Your task to perform on an android device: Search for "logitech g502" on target, select the first entry, and add it to the cart. Image 0: 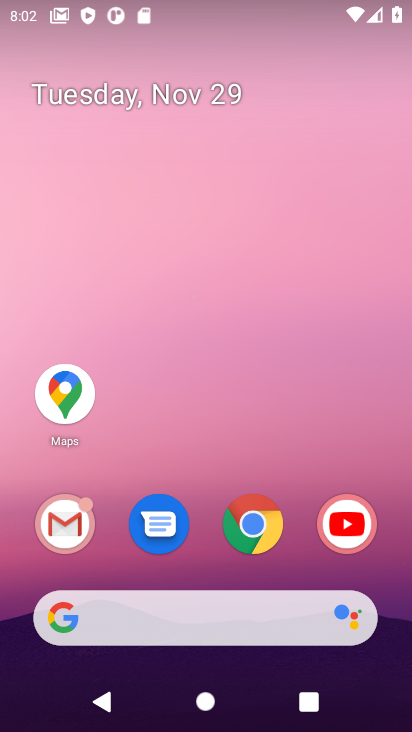
Step 0: click (249, 524)
Your task to perform on an android device: Search for "logitech g502" on target, select the first entry, and add it to the cart. Image 1: 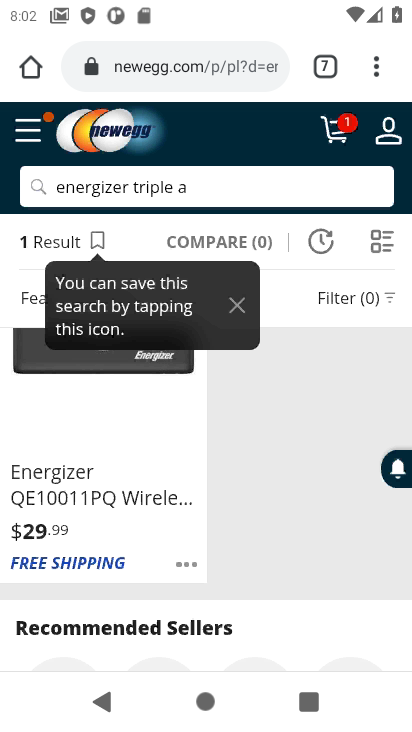
Step 1: click (158, 60)
Your task to perform on an android device: Search for "logitech g502" on target, select the first entry, and add it to the cart. Image 2: 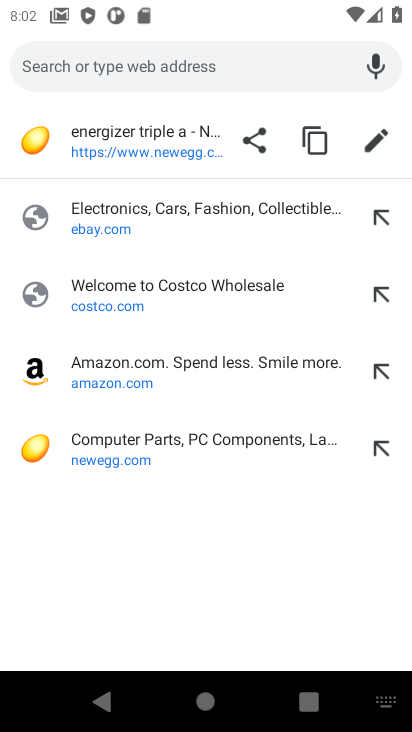
Step 2: type "target.com"
Your task to perform on an android device: Search for "logitech g502" on target, select the first entry, and add it to the cart. Image 3: 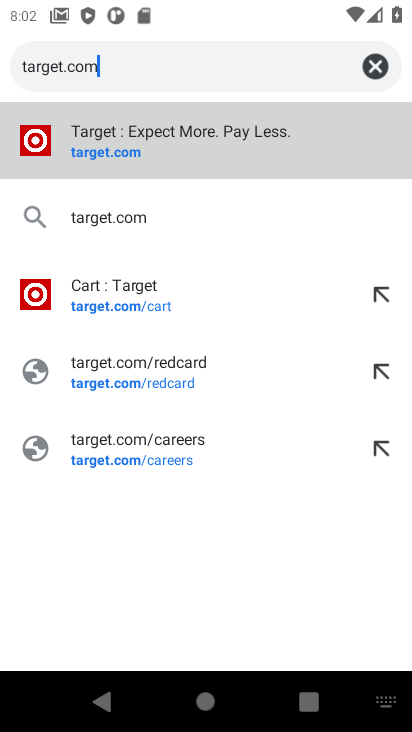
Step 3: click (94, 156)
Your task to perform on an android device: Search for "logitech g502" on target, select the first entry, and add it to the cart. Image 4: 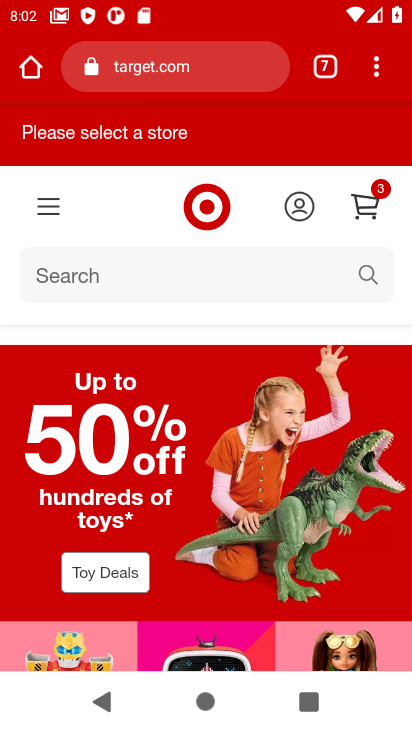
Step 4: click (37, 280)
Your task to perform on an android device: Search for "logitech g502" on target, select the first entry, and add it to the cart. Image 5: 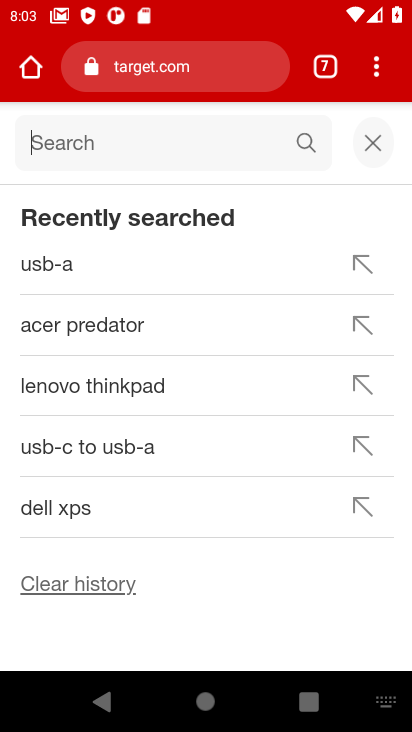
Step 5: type "logitech g502"
Your task to perform on an android device: Search for "logitech g502" on target, select the first entry, and add it to the cart. Image 6: 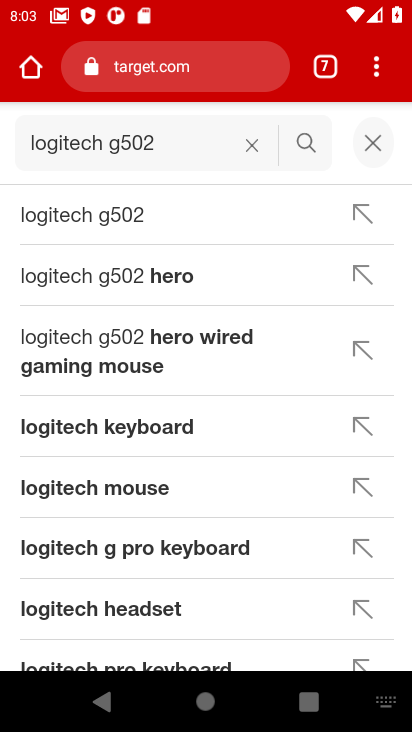
Step 6: click (113, 220)
Your task to perform on an android device: Search for "logitech g502" on target, select the first entry, and add it to the cart. Image 7: 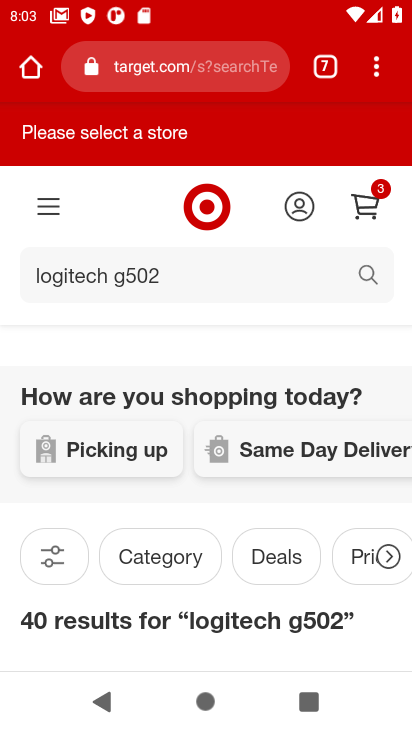
Step 7: drag from (248, 504) to (247, 198)
Your task to perform on an android device: Search for "logitech g502" on target, select the first entry, and add it to the cart. Image 8: 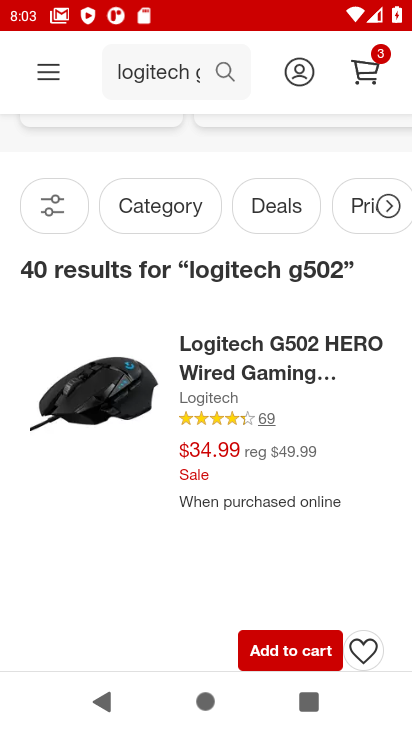
Step 8: drag from (296, 541) to (298, 453)
Your task to perform on an android device: Search for "logitech g502" on target, select the first entry, and add it to the cart. Image 9: 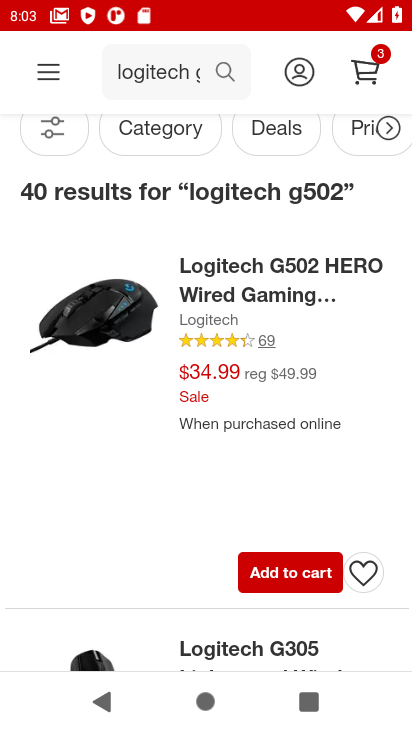
Step 9: click (282, 577)
Your task to perform on an android device: Search for "logitech g502" on target, select the first entry, and add it to the cart. Image 10: 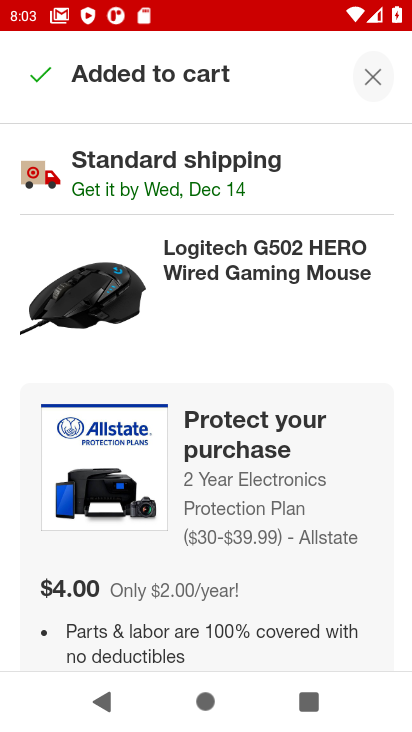
Step 10: task complete